Your task to perform on an android device: see sites visited before in the chrome app Image 0: 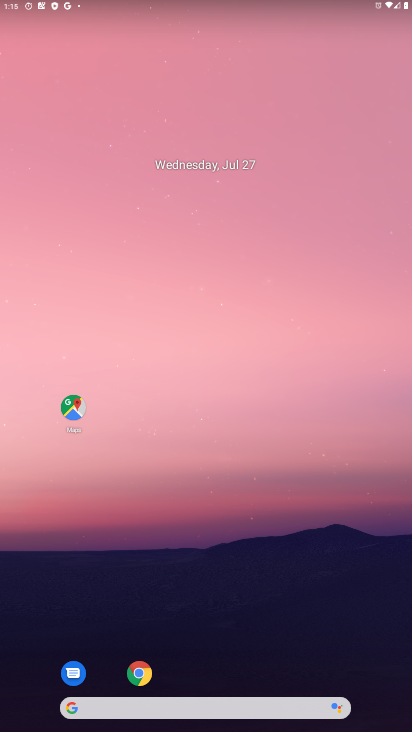
Step 0: click (145, 673)
Your task to perform on an android device: see sites visited before in the chrome app Image 1: 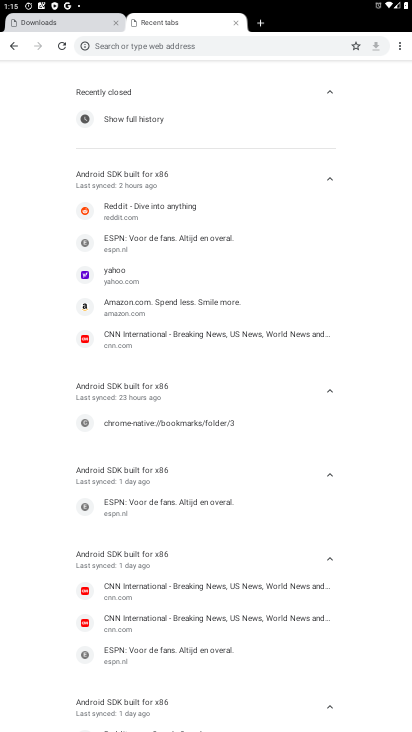
Step 1: task complete